Your task to perform on an android device: Set the phone to "Do not disturb". Image 0: 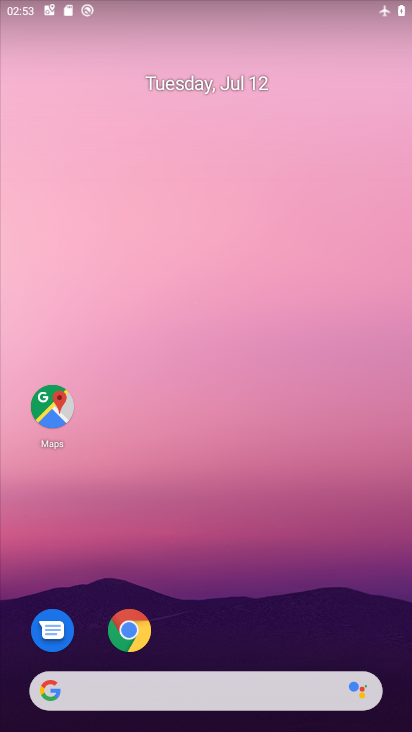
Step 0: drag from (390, 623) to (330, 183)
Your task to perform on an android device: Set the phone to "Do not disturb". Image 1: 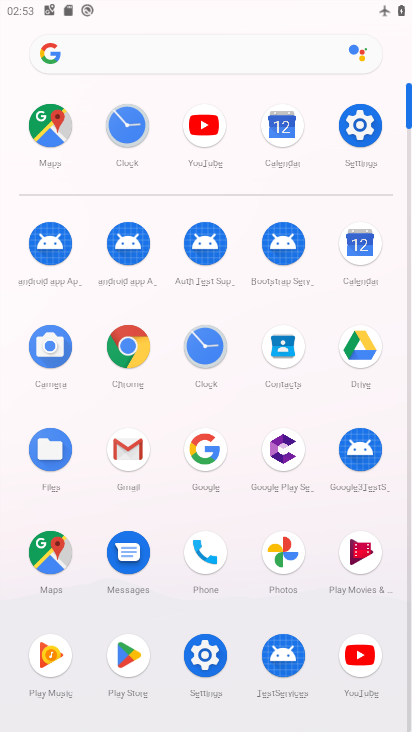
Step 1: click (208, 654)
Your task to perform on an android device: Set the phone to "Do not disturb". Image 2: 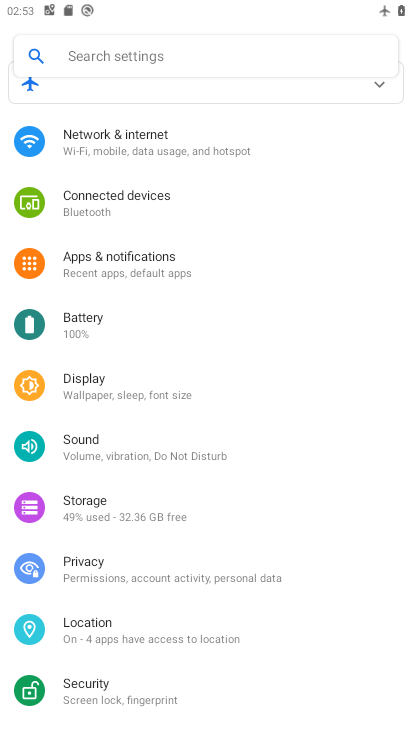
Step 2: click (96, 440)
Your task to perform on an android device: Set the phone to "Do not disturb". Image 3: 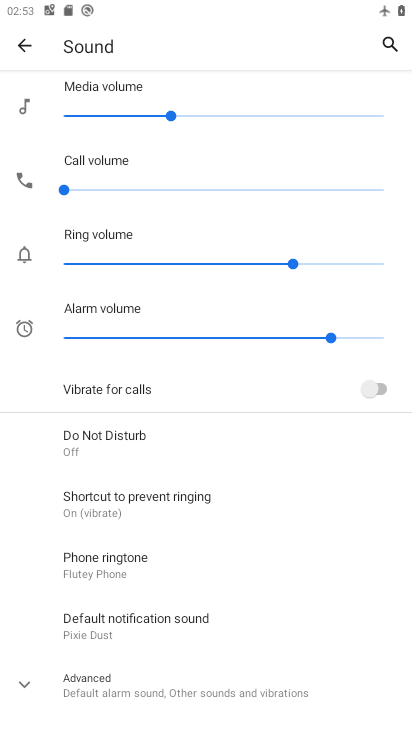
Step 3: click (99, 432)
Your task to perform on an android device: Set the phone to "Do not disturb". Image 4: 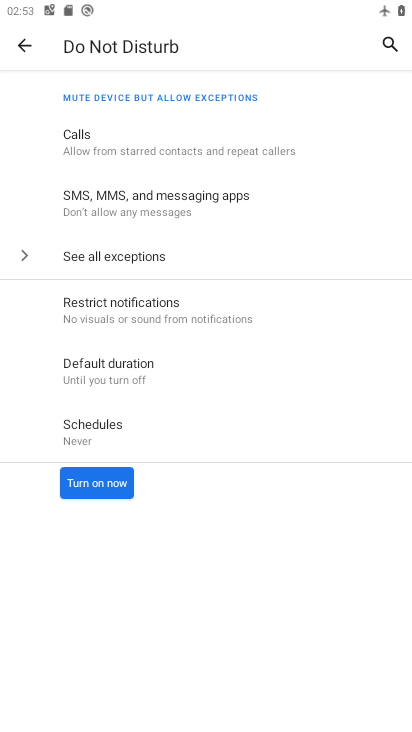
Step 4: click (87, 486)
Your task to perform on an android device: Set the phone to "Do not disturb". Image 5: 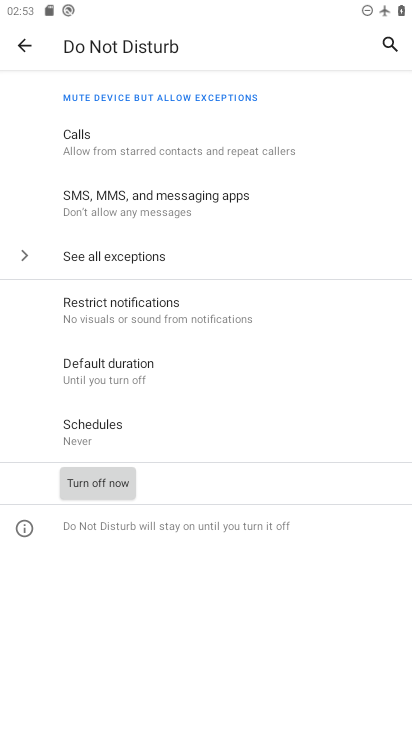
Step 5: task complete